Your task to perform on an android device: Open maps Image 0: 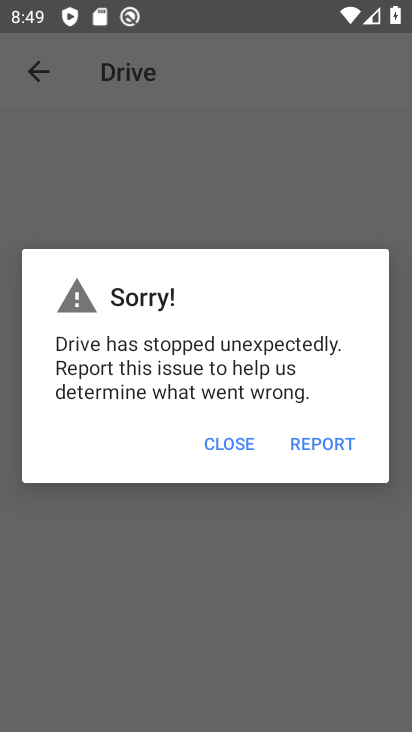
Step 0: press home button
Your task to perform on an android device: Open maps Image 1: 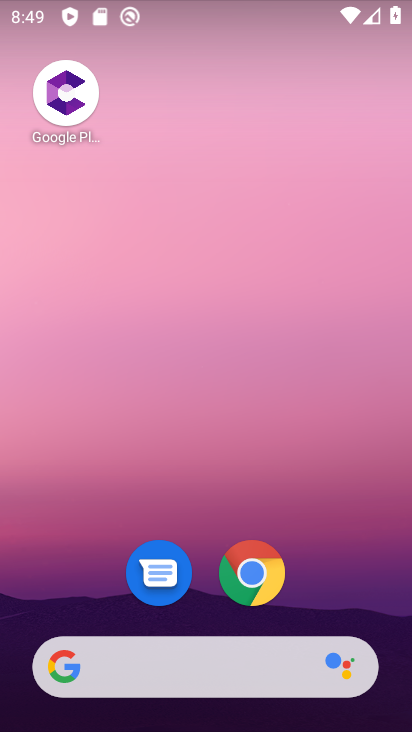
Step 1: drag from (68, 604) to (235, 47)
Your task to perform on an android device: Open maps Image 2: 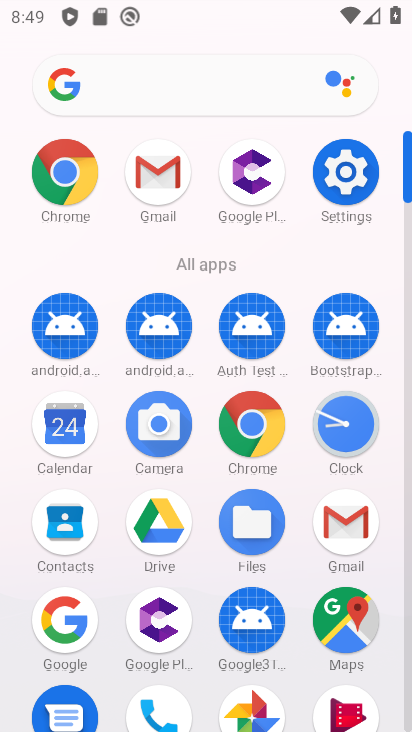
Step 2: click (348, 616)
Your task to perform on an android device: Open maps Image 3: 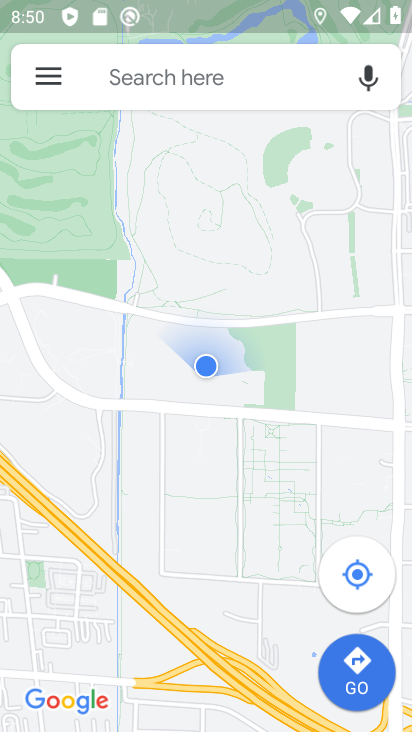
Step 3: task complete